Your task to perform on an android device: Turn off the flashlight Image 0: 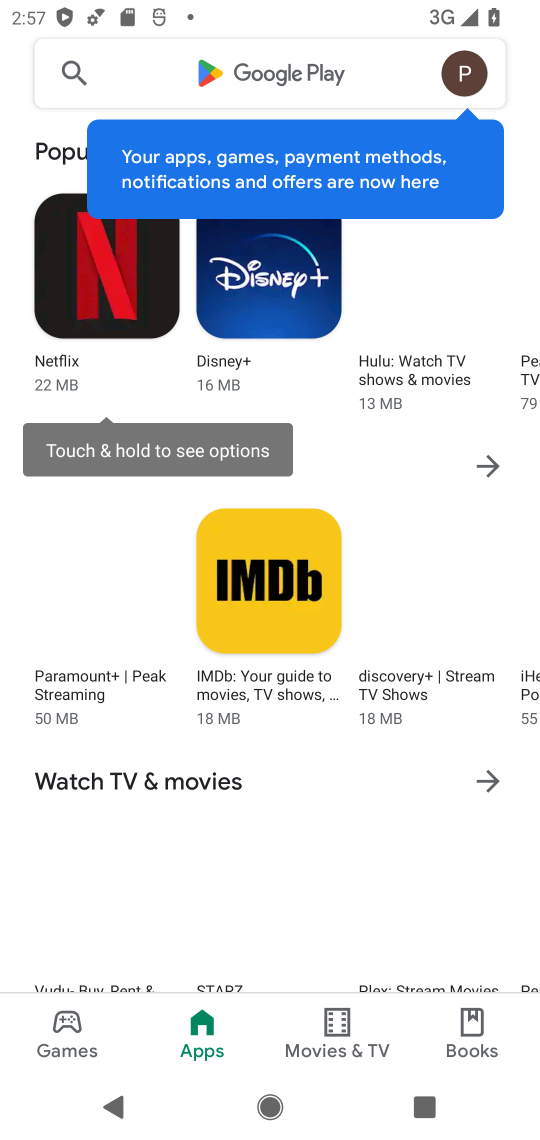
Step 0: press home button
Your task to perform on an android device: Turn off the flashlight Image 1: 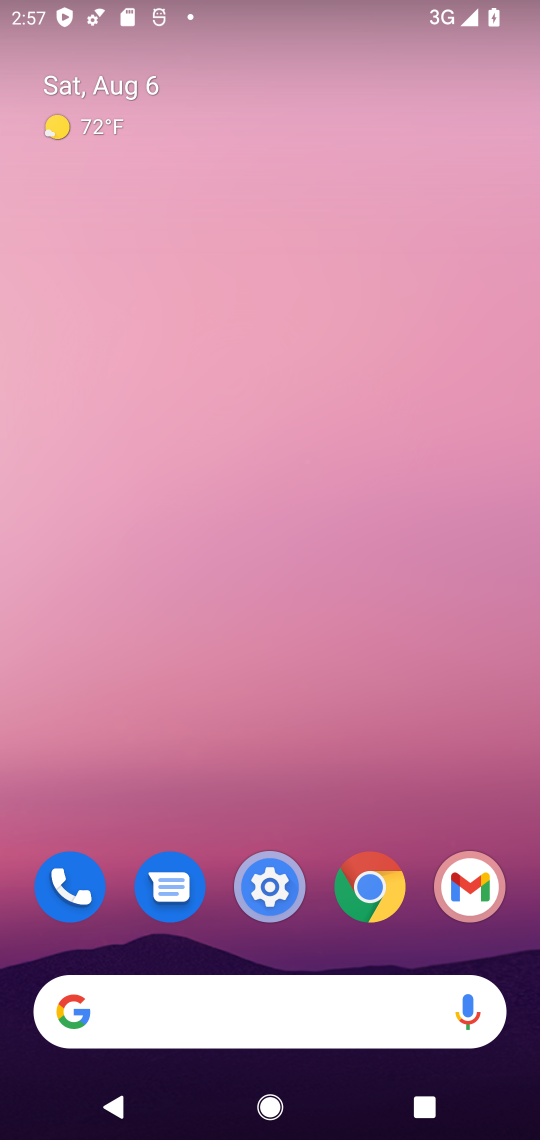
Step 1: task complete